Your task to perform on an android device: open app "Truecaller" (install if not already installed), go to login, and select forgot password Image 0: 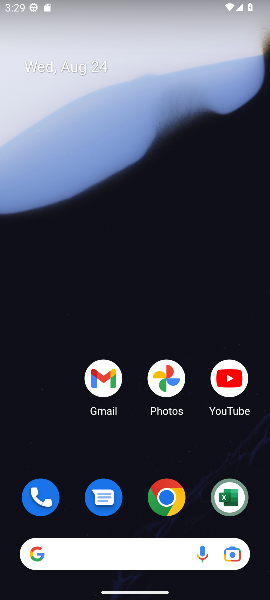
Step 0: drag from (105, 552) to (167, 168)
Your task to perform on an android device: open app "Truecaller" (install if not already installed), go to login, and select forgot password Image 1: 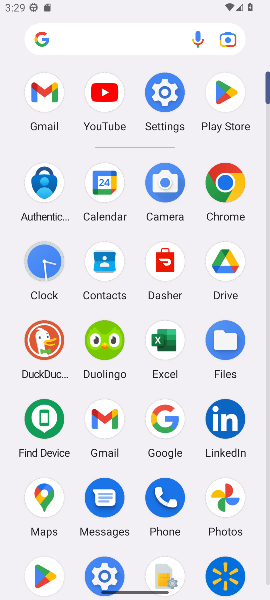
Step 1: click (229, 94)
Your task to perform on an android device: open app "Truecaller" (install if not already installed), go to login, and select forgot password Image 2: 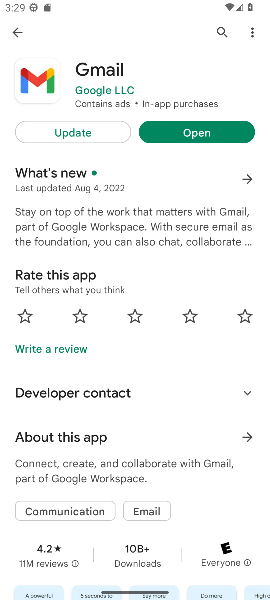
Step 2: press back button
Your task to perform on an android device: open app "Truecaller" (install if not already installed), go to login, and select forgot password Image 3: 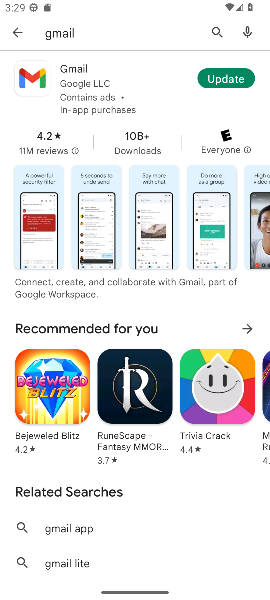
Step 3: press back button
Your task to perform on an android device: open app "Truecaller" (install if not already installed), go to login, and select forgot password Image 4: 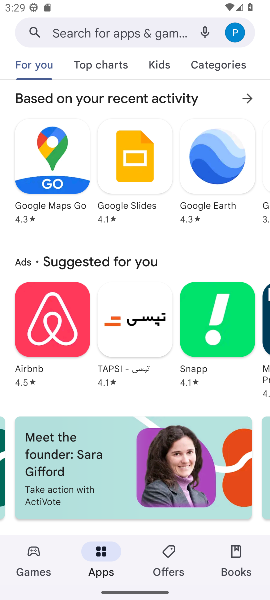
Step 4: click (150, 35)
Your task to perform on an android device: open app "Truecaller" (install if not already installed), go to login, and select forgot password Image 5: 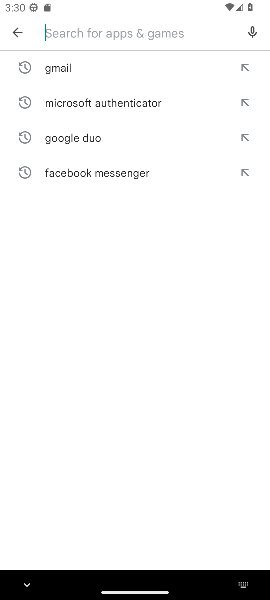
Step 5: type "Truecaller"
Your task to perform on an android device: open app "Truecaller" (install if not already installed), go to login, and select forgot password Image 6: 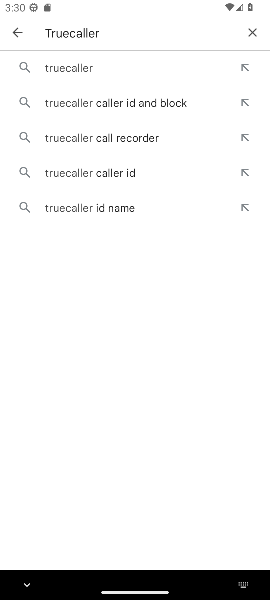
Step 6: click (70, 71)
Your task to perform on an android device: open app "Truecaller" (install if not already installed), go to login, and select forgot password Image 7: 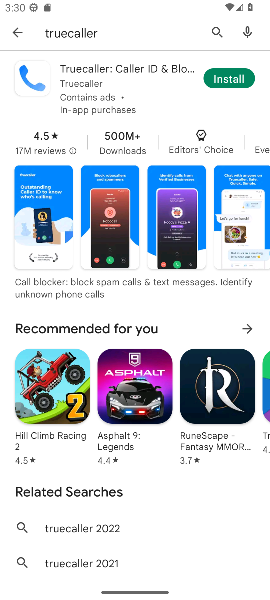
Step 7: click (223, 77)
Your task to perform on an android device: open app "Truecaller" (install if not already installed), go to login, and select forgot password Image 8: 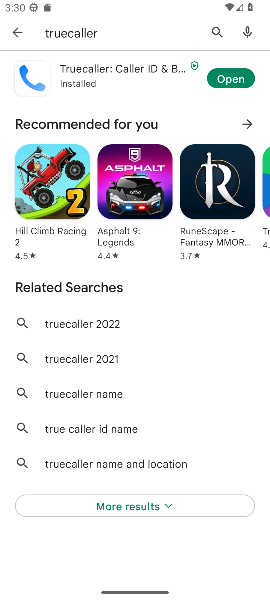
Step 8: click (223, 77)
Your task to perform on an android device: open app "Truecaller" (install if not already installed), go to login, and select forgot password Image 9: 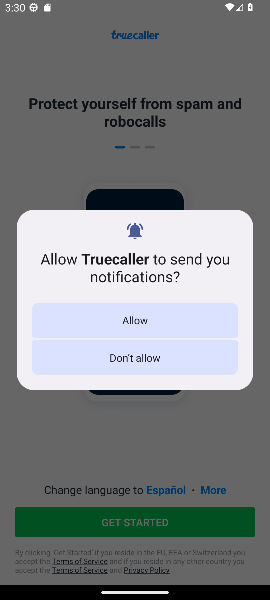
Step 9: click (128, 318)
Your task to perform on an android device: open app "Truecaller" (install if not already installed), go to login, and select forgot password Image 10: 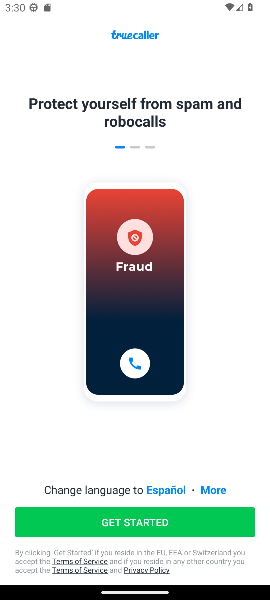
Step 10: click (195, 518)
Your task to perform on an android device: open app "Truecaller" (install if not already installed), go to login, and select forgot password Image 11: 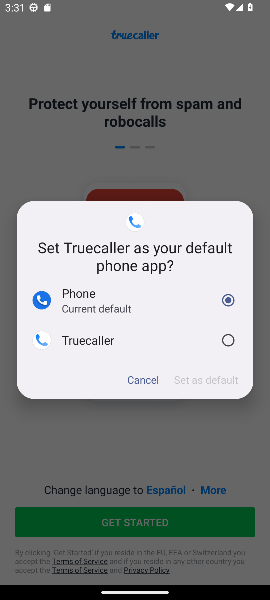
Step 11: click (224, 337)
Your task to perform on an android device: open app "Truecaller" (install if not already installed), go to login, and select forgot password Image 12: 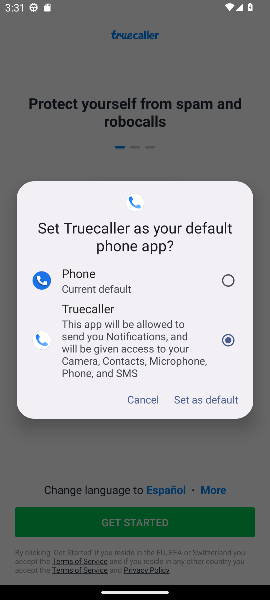
Step 12: click (204, 401)
Your task to perform on an android device: open app "Truecaller" (install if not already installed), go to login, and select forgot password Image 13: 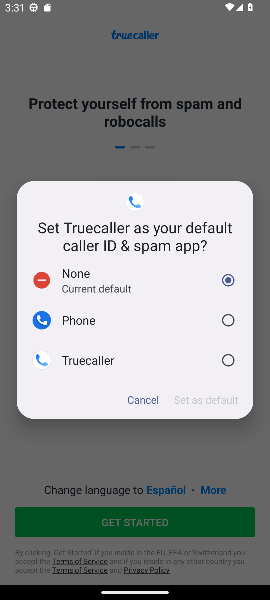
Step 13: click (227, 355)
Your task to perform on an android device: open app "Truecaller" (install if not already installed), go to login, and select forgot password Image 14: 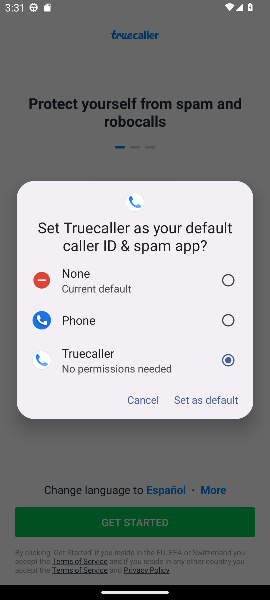
Step 14: click (214, 403)
Your task to perform on an android device: open app "Truecaller" (install if not already installed), go to login, and select forgot password Image 15: 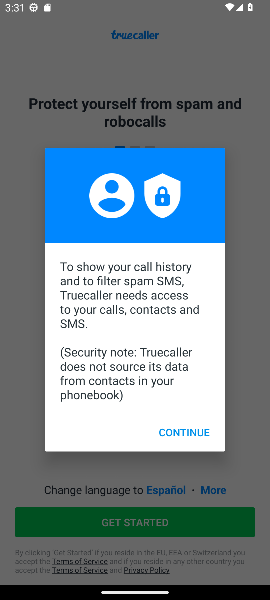
Step 15: click (185, 438)
Your task to perform on an android device: open app "Truecaller" (install if not already installed), go to login, and select forgot password Image 16: 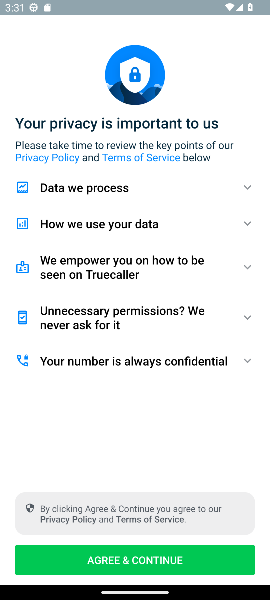
Step 16: click (140, 563)
Your task to perform on an android device: open app "Truecaller" (install if not already installed), go to login, and select forgot password Image 17: 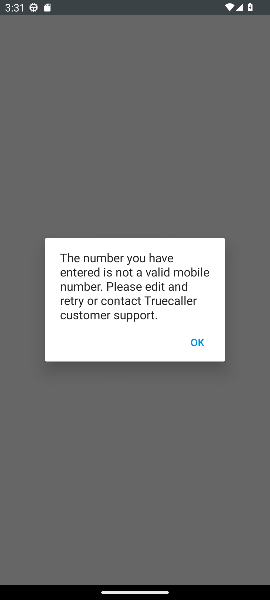
Step 17: click (196, 340)
Your task to perform on an android device: open app "Truecaller" (install if not already installed), go to login, and select forgot password Image 18: 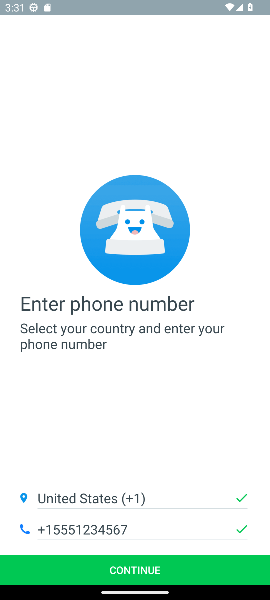
Step 18: task complete